Your task to perform on an android device: Go to Amazon Image 0: 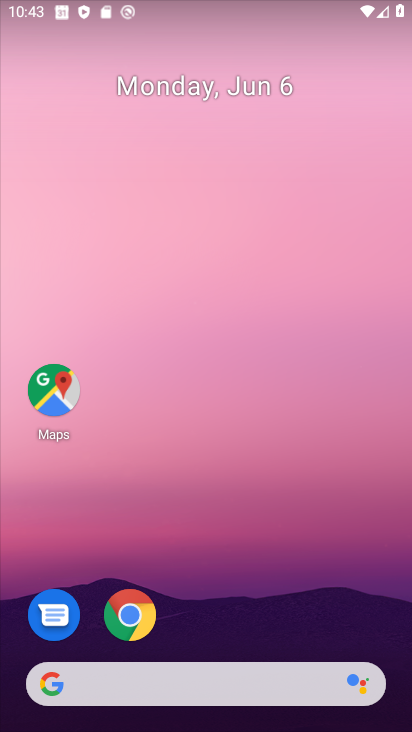
Step 0: click (245, 683)
Your task to perform on an android device: Go to Amazon Image 1: 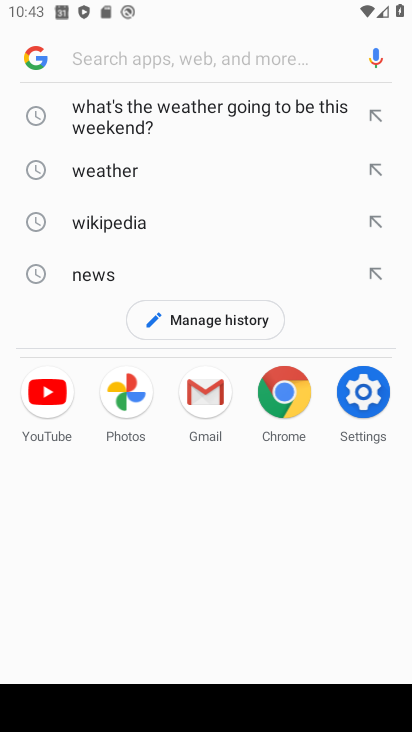
Step 1: type "amazon"
Your task to perform on an android device: Go to Amazon Image 2: 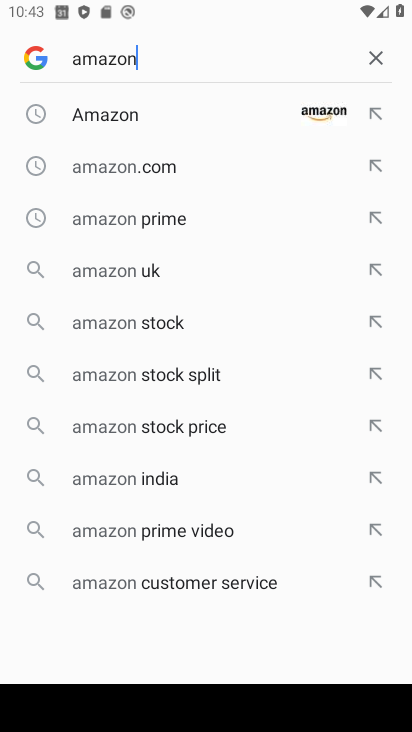
Step 2: click (165, 127)
Your task to perform on an android device: Go to Amazon Image 3: 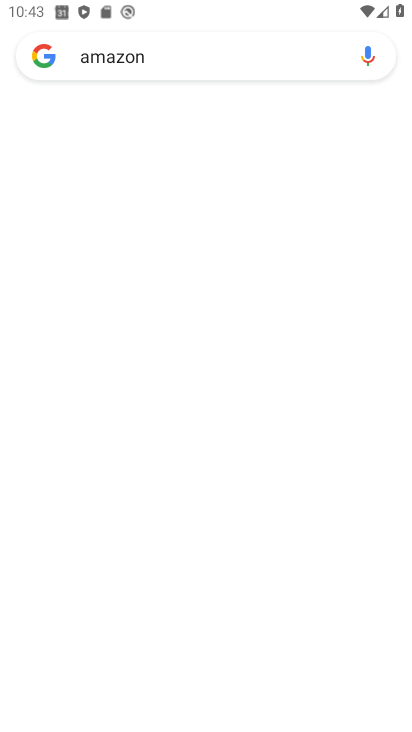
Step 3: task complete